Your task to perform on an android device: turn on wifi Image 0: 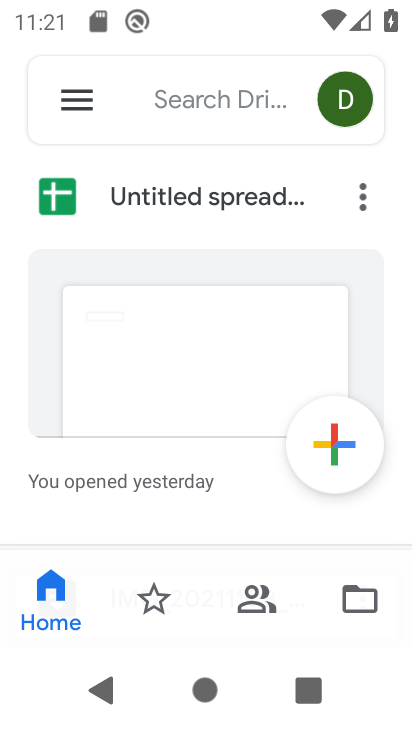
Step 0: click (236, 513)
Your task to perform on an android device: turn on wifi Image 1: 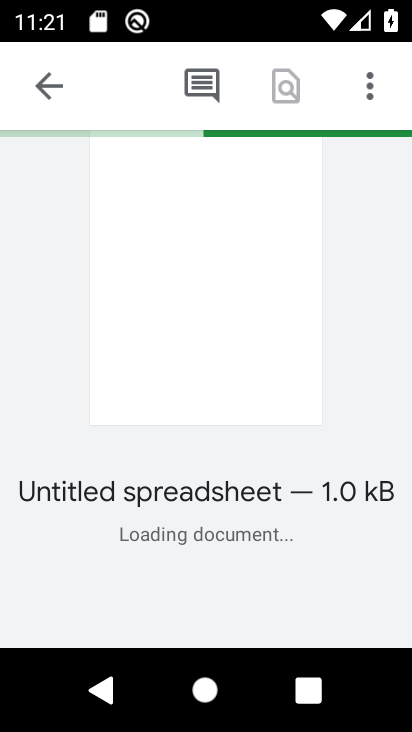
Step 1: task complete